Your task to perform on an android device: Open the web browser Image 0: 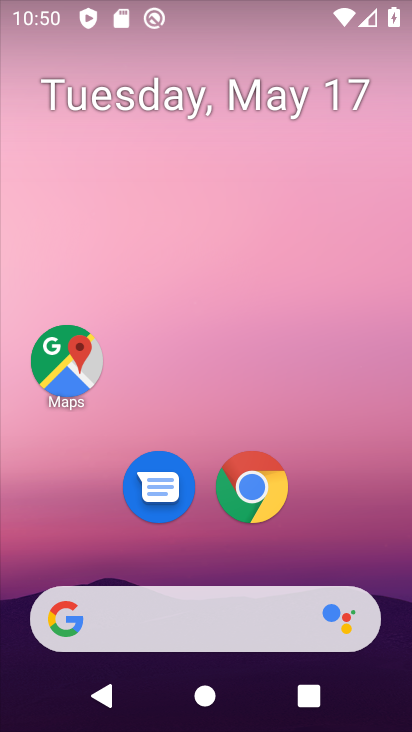
Step 0: drag from (320, 531) to (290, 65)
Your task to perform on an android device: Open the web browser Image 1: 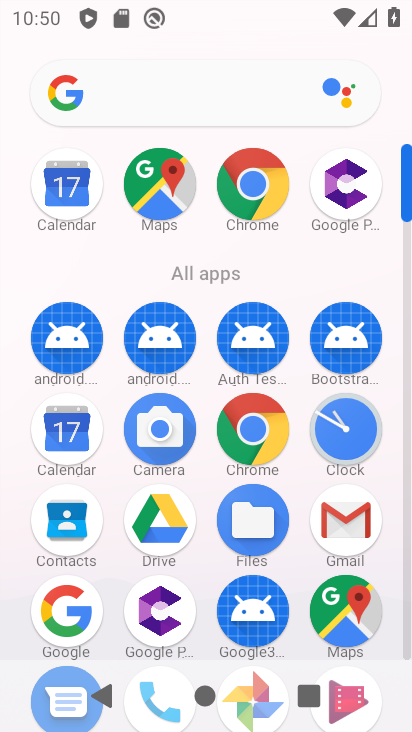
Step 1: press home button
Your task to perform on an android device: Open the web browser Image 2: 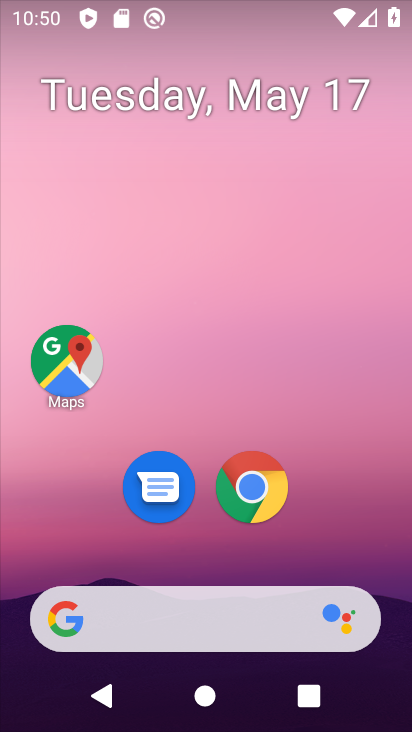
Step 2: click (273, 496)
Your task to perform on an android device: Open the web browser Image 3: 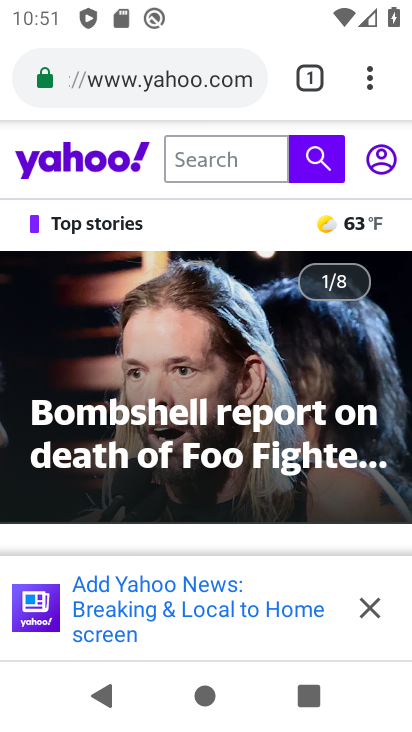
Step 3: click (162, 82)
Your task to perform on an android device: Open the web browser Image 4: 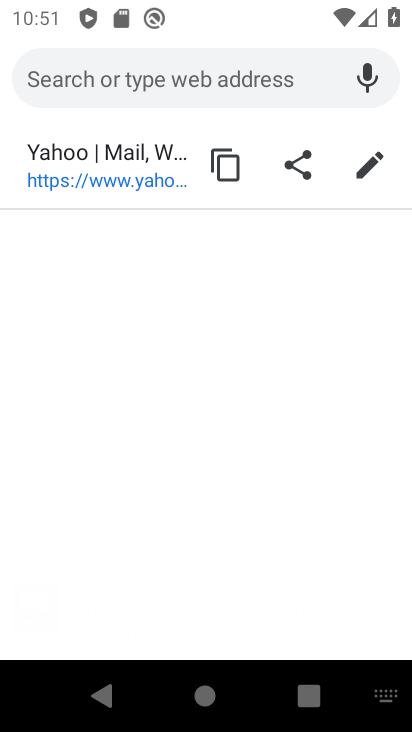
Step 4: click (324, 92)
Your task to perform on an android device: Open the web browser Image 5: 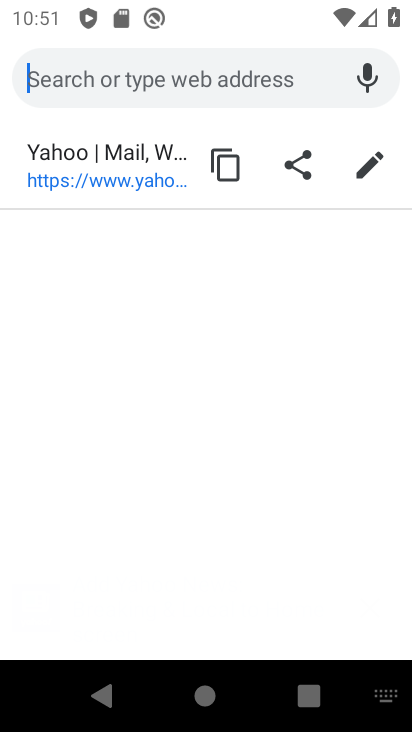
Step 5: type " web browser"
Your task to perform on an android device: Open the web browser Image 6: 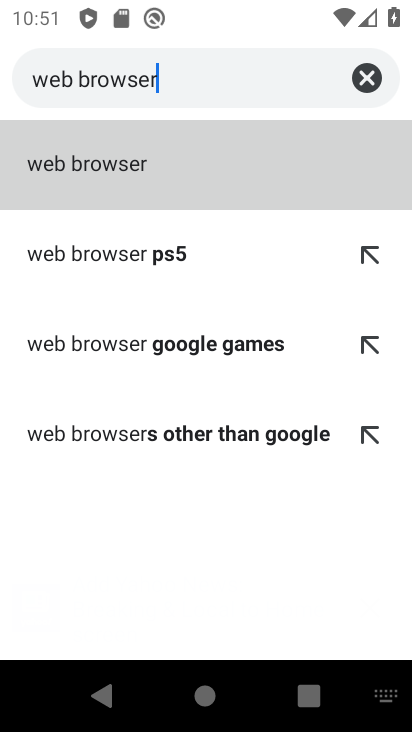
Step 6: click (197, 192)
Your task to perform on an android device: Open the web browser Image 7: 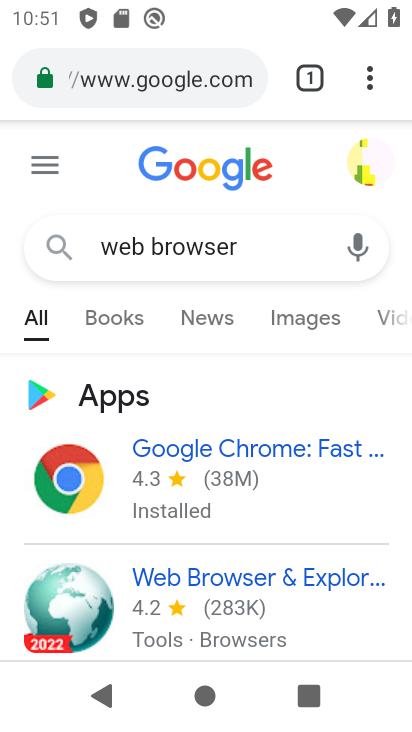
Step 7: task complete